Your task to perform on an android device: turn off location history Image 0: 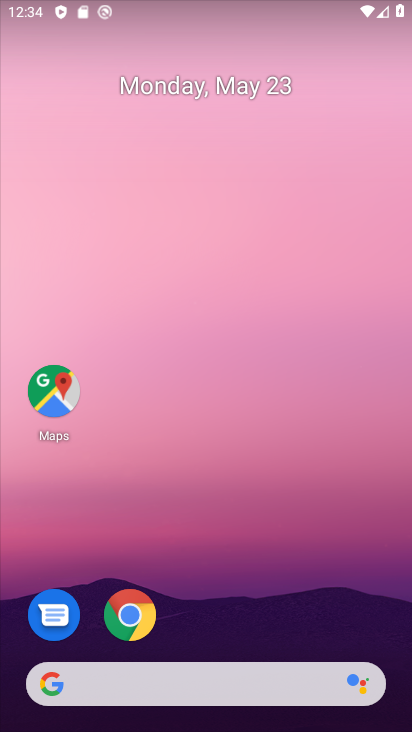
Step 0: drag from (214, 723) to (217, 81)
Your task to perform on an android device: turn off location history Image 1: 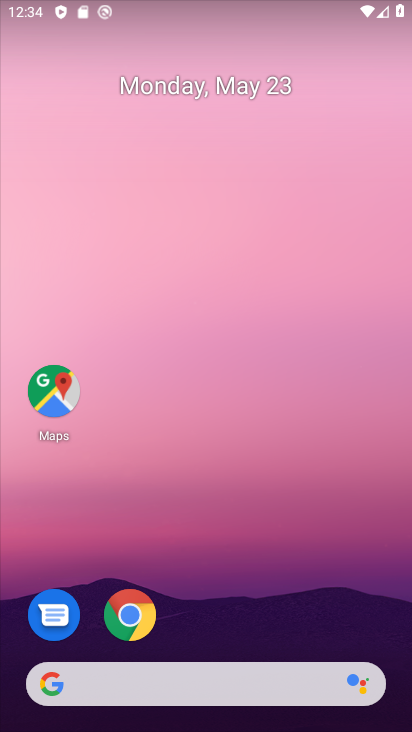
Step 1: drag from (171, 704) to (171, 63)
Your task to perform on an android device: turn off location history Image 2: 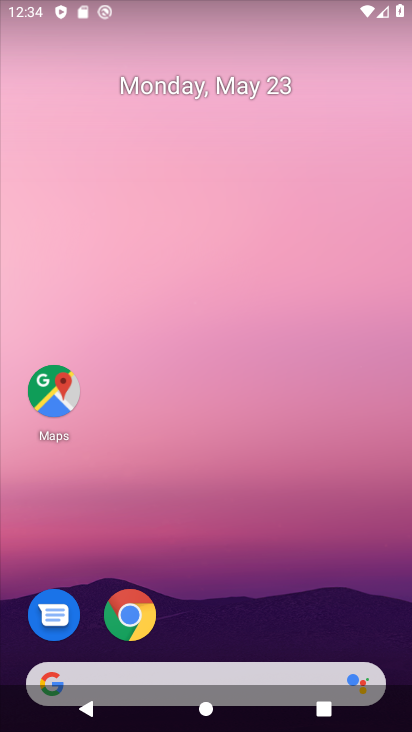
Step 2: drag from (226, 720) to (234, 0)
Your task to perform on an android device: turn off location history Image 3: 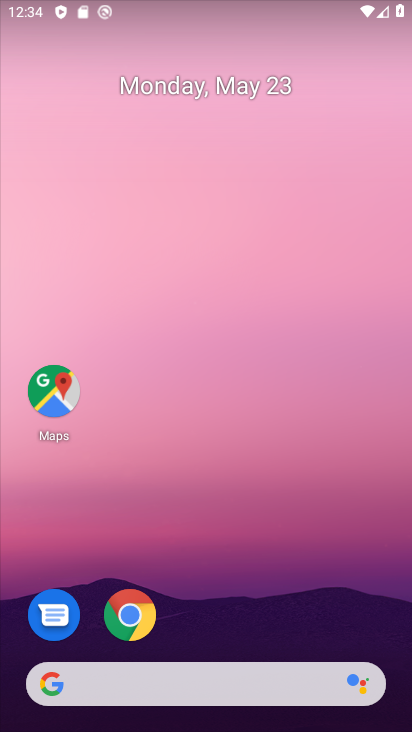
Step 3: drag from (233, 666) to (234, 111)
Your task to perform on an android device: turn off location history Image 4: 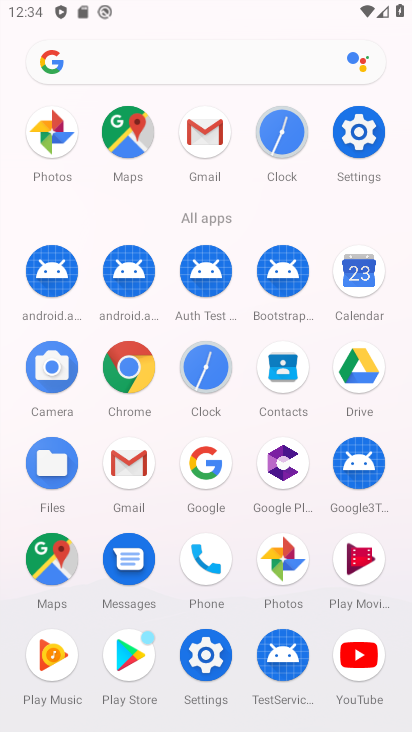
Step 4: click (363, 135)
Your task to perform on an android device: turn off location history Image 5: 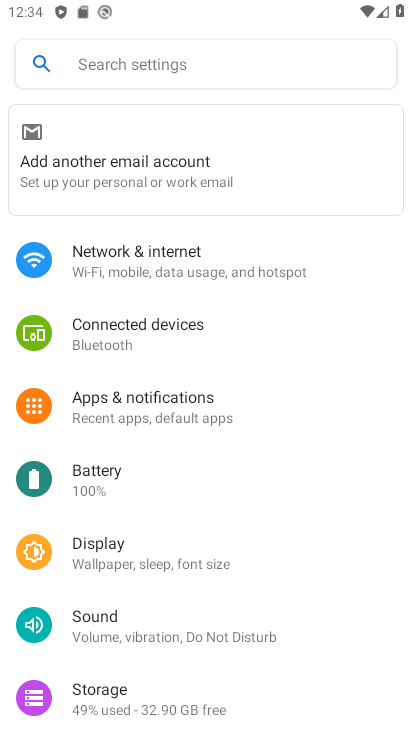
Step 5: drag from (173, 590) to (177, 300)
Your task to perform on an android device: turn off location history Image 6: 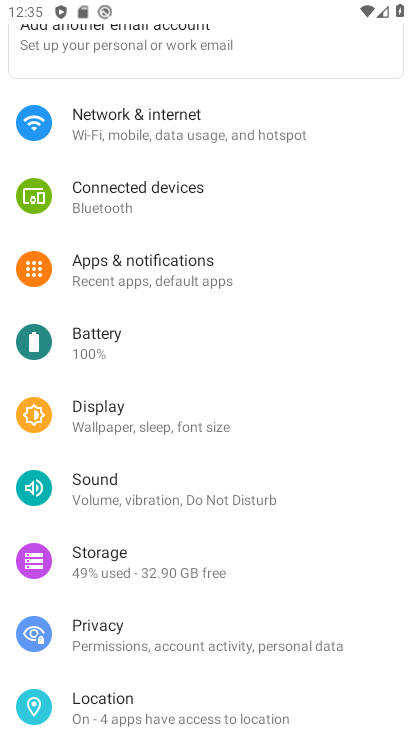
Step 6: click (99, 695)
Your task to perform on an android device: turn off location history Image 7: 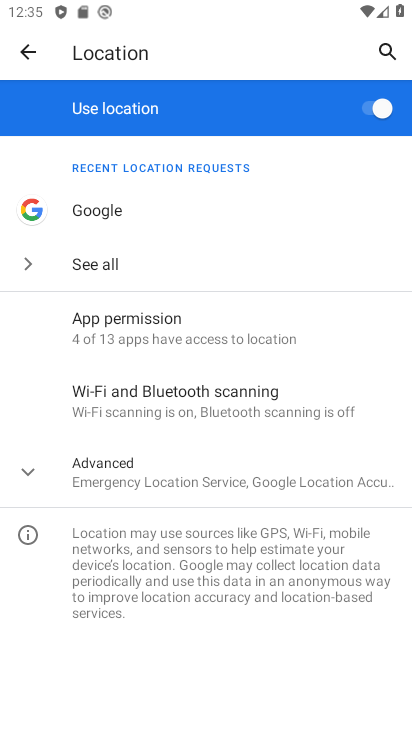
Step 7: click (366, 107)
Your task to perform on an android device: turn off location history Image 8: 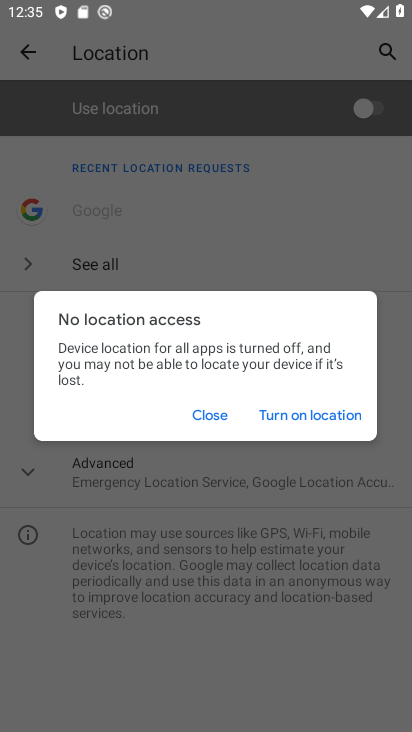
Step 8: click (211, 416)
Your task to perform on an android device: turn off location history Image 9: 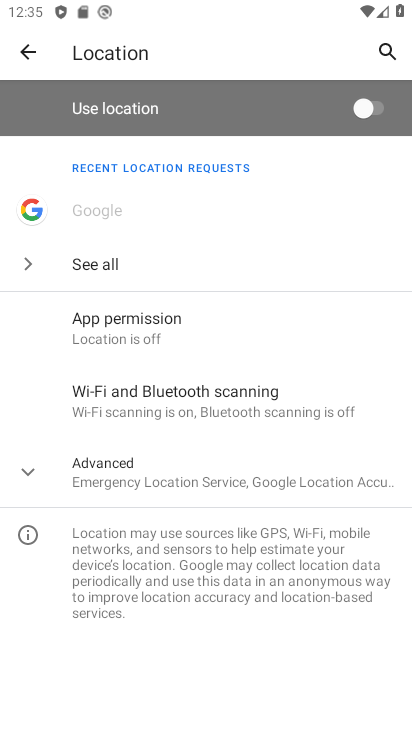
Step 9: task complete